Your task to perform on an android device: Open internet settings Image 0: 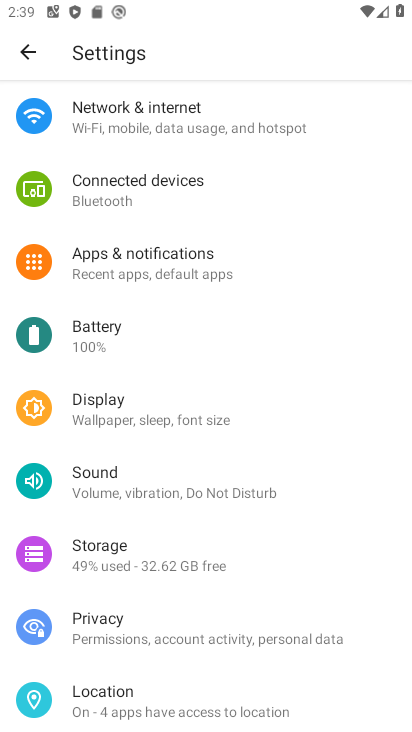
Step 0: press home button
Your task to perform on an android device: Open internet settings Image 1: 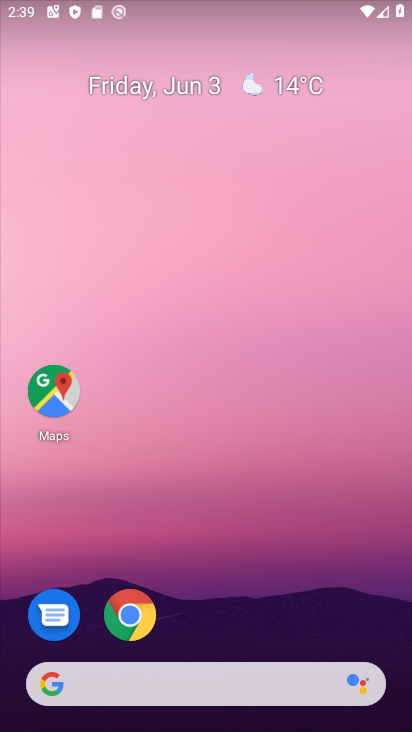
Step 1: drag from (223, 623) to (235, 131)
Your task to perform on an android device: Open internet settings Image 2: 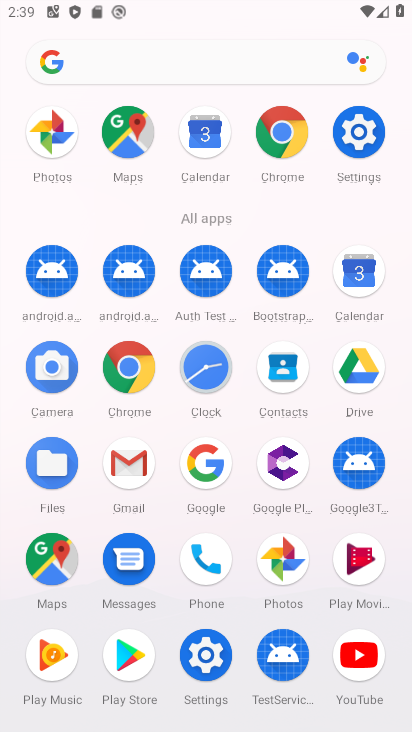
Step 2: click (378, 133)
Your task to perform on an android device: Open internet settings Image 3: 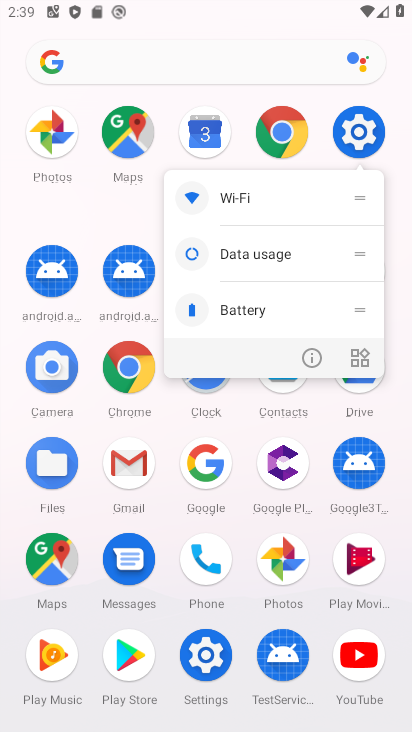
Step 3: click (353, 136)
Your task to perform on an android device: Open internet settings Image 4: 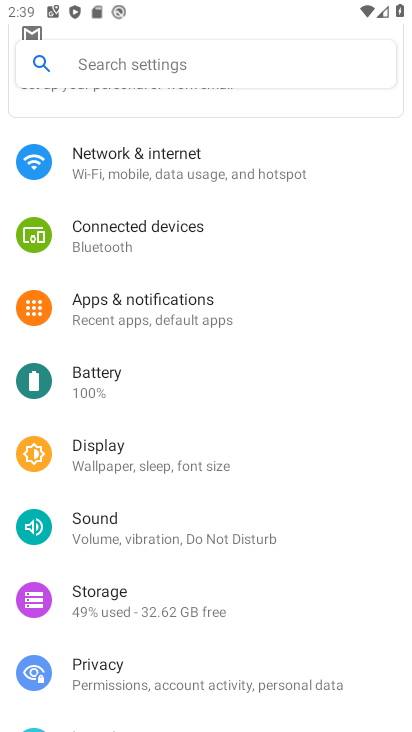
Step 4: click (132, 163)
Your task to perform on an android device: Open internet settings Image 5: 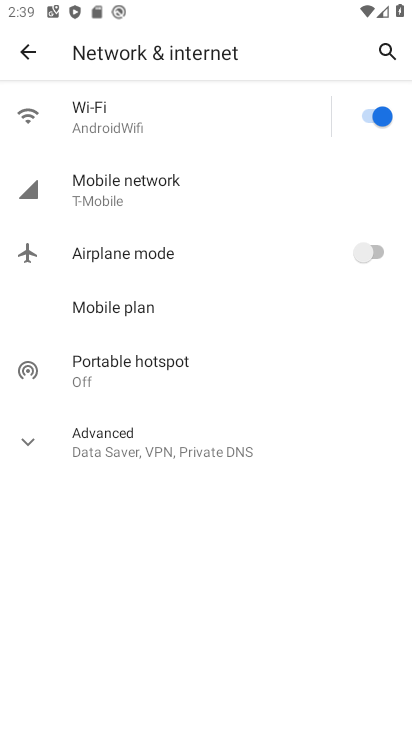
Step 5: task complete